Your task to perform on an android device: Check the news Image 0: 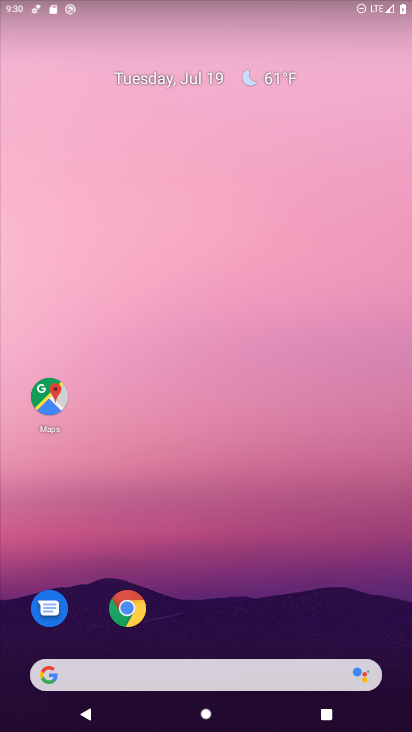
Step 0: drag from (10, 285) to (396, 294)
Your task to perform on an android device: Check the news Image 1: 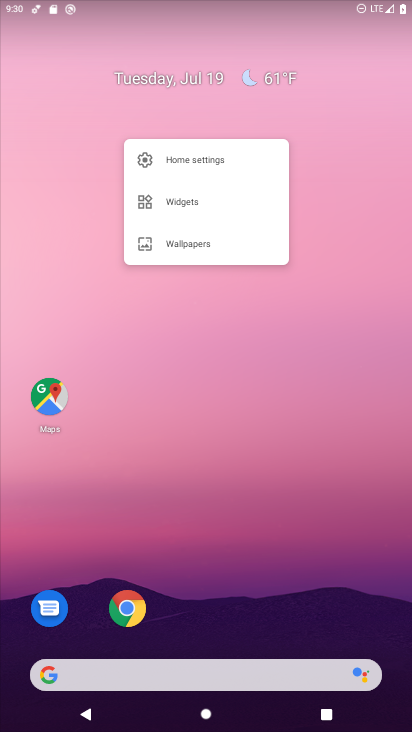
Step 1: click (275, 316)
Your task to perform on an android device: Check the news Image 2: 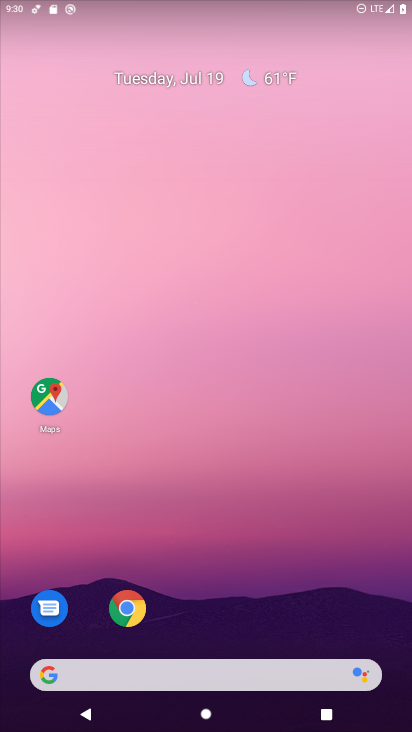
Step 2: task complete